Your task to perform on an android device: Open my contact list Image 0: 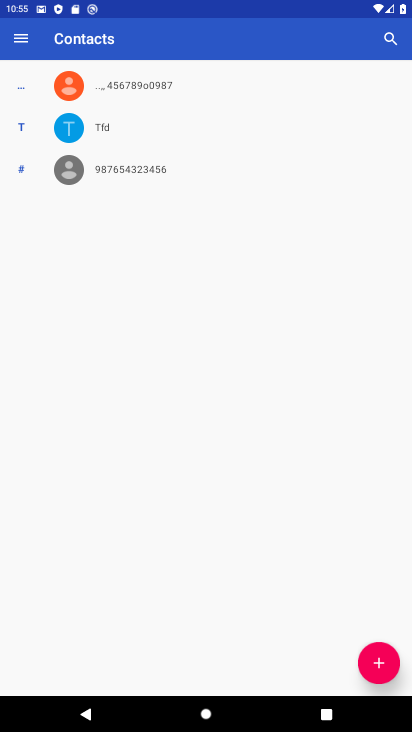
Step 0: task complete